Your task to perform on an android device: Do I have any events tomorrow? Image 0: 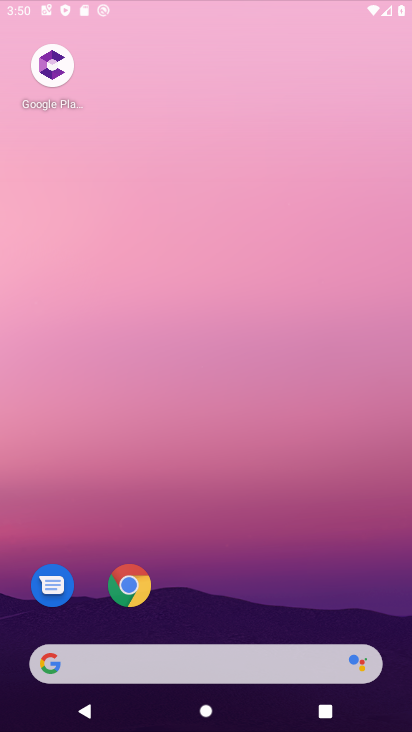
Step 0: press home button
Your task to perform on an android device: Do I have any events tomorrow? Image 1: 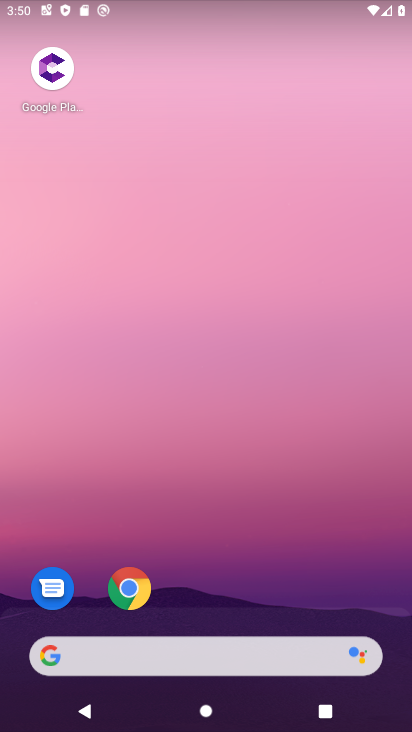
Step 1: drag from (240, 606) to (132, 52)
Your task to perform on an android device: Do I have any events tomorrow? Image 2: 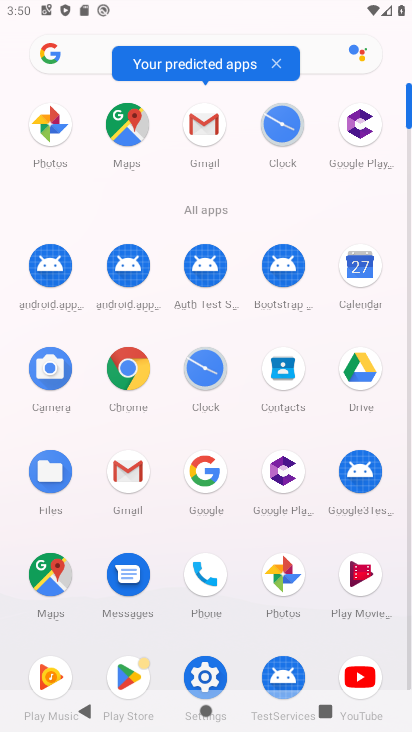
Step 2: click (355, 274)
Your task to perform on an android device: Do I have any events tomorrow? Image 3: 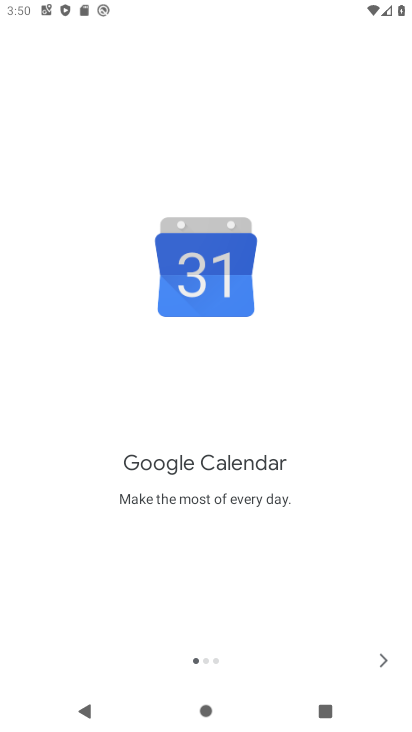
Step 3: click (382, 662)
Your task to perform on an android device: Do I have any events tomorrow? Image 4: 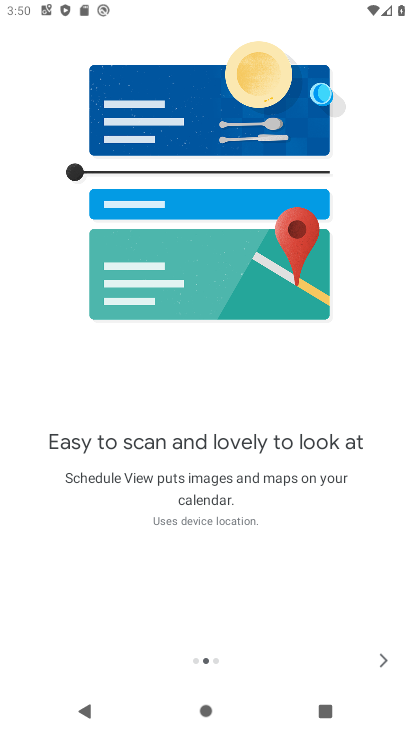
Step 4: click (382, 662)
Your task to perform on an android device: Do I have any events tomorrow? Image 5: 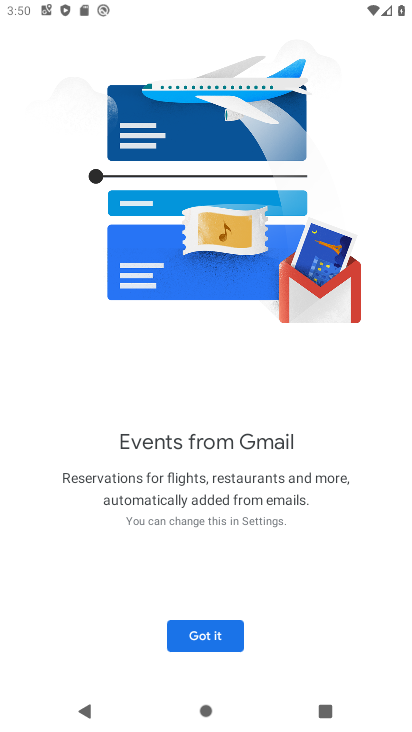
Step 5: click (192, 641)
Your task to perform on an android device: Do I have any events tomorrow? Image 6: 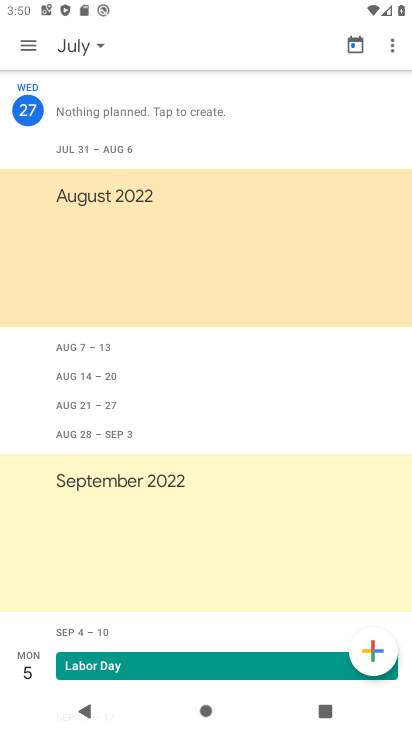
Step 6: click (100, 49)
Your task to perform on an android device: Do I have any events tomorrow? Image 7: 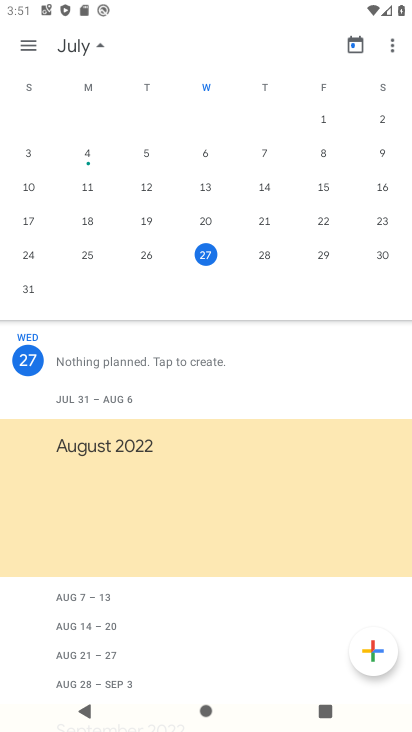
Step 7: click (262, 258)
Your task to perform on an android device: Do I have any events tomorrow? Image 8: 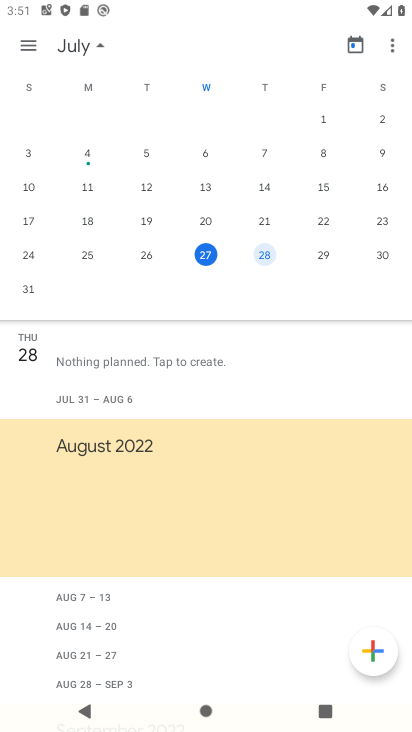
Step 8: task complete